Your task to perform on an android device: Go to privacy settings Image 0: 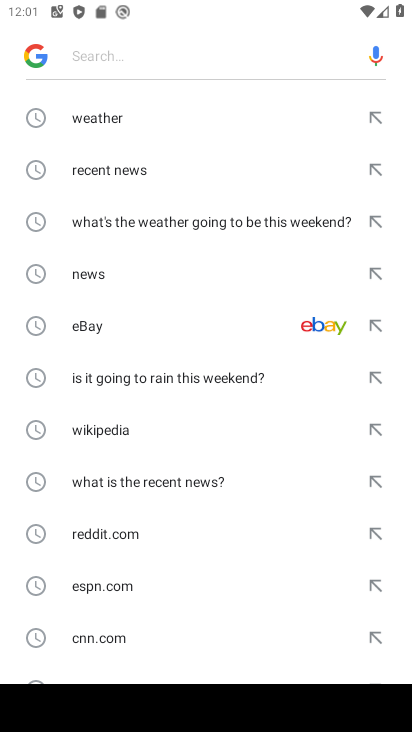
Step 0: press home button
Your task to perform on an android device: Go to privacy settings Image 1: 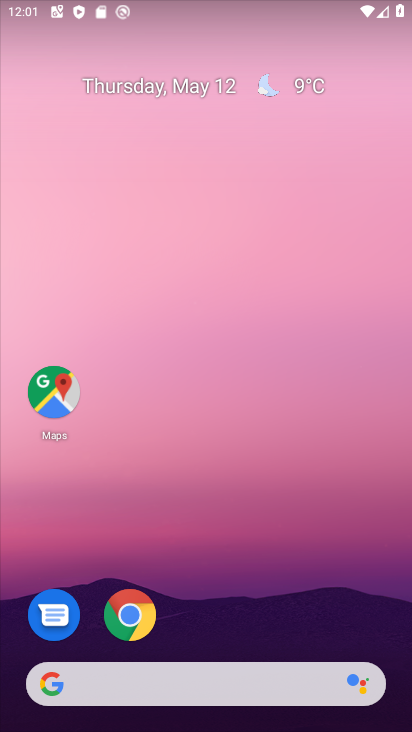
Step 1: drag from (231, 617) to (309, 15)
Your task to perform on an android device: Go to privacy settings Image 2: 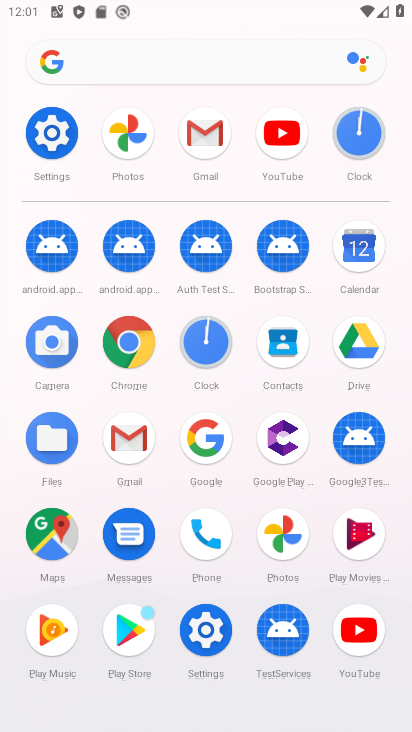
Step 2: click (54, 122)
Your task to perform on an android device: Go to privacy settings Image 3: 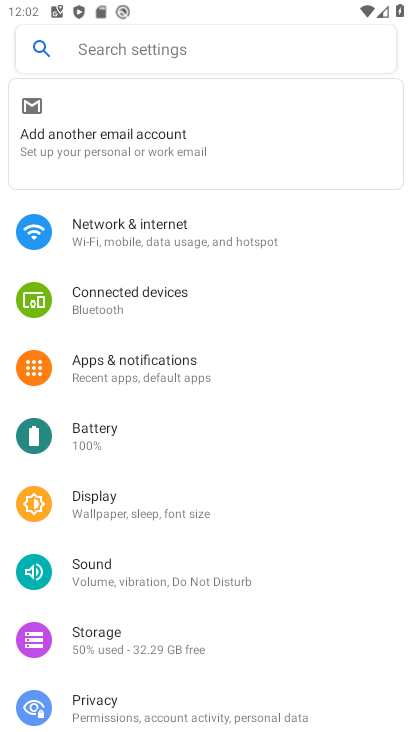
Step 3: drag from (111, 597) to (227, 2)
Your task to perform on an android device: Go to privacy settings Image 4: 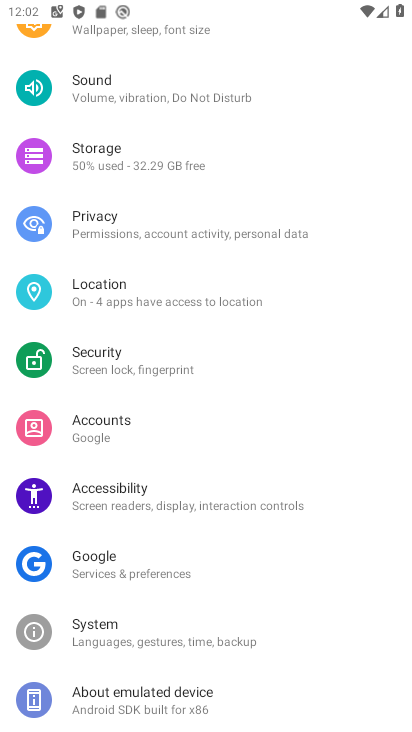
Step 4: click (219, 228)
Your task to perform on an android device: Go to privacy settings Image 5: 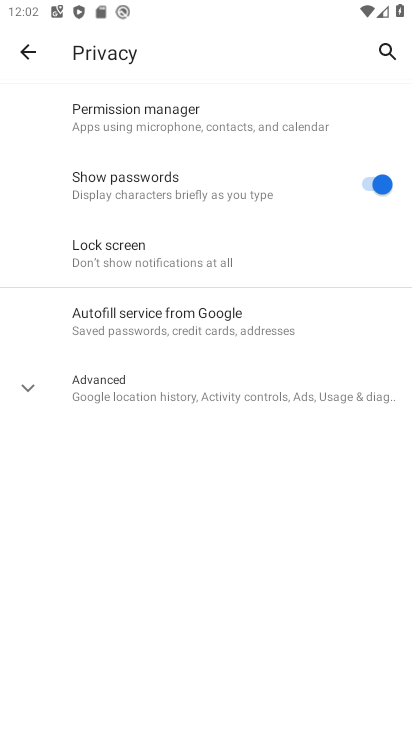
Step 5: task complete